Your task to perform on an android device: Go to Google maps Image 0: 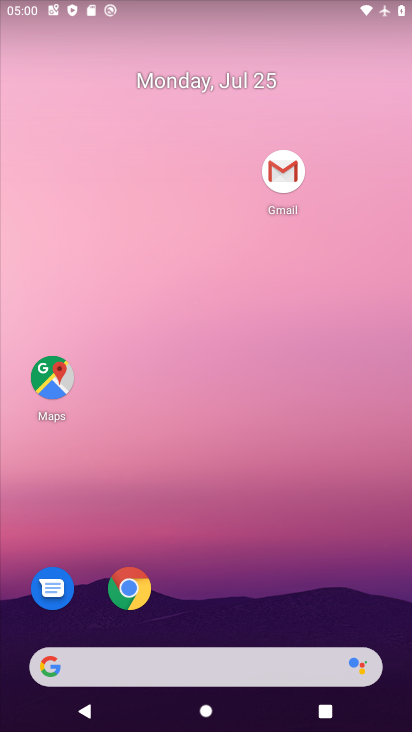
Step 0: click (51, 381)
Your task to perform on an android device: Go to Google maps Image 1: 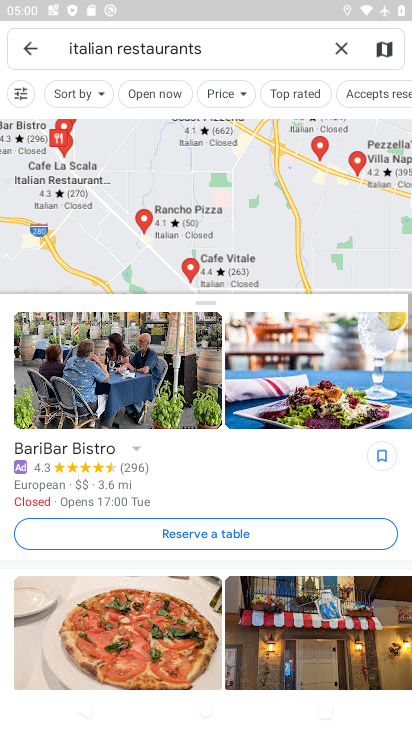
Step 1: task complete